Your task to perform on an android device: Do I have any events tomorrow? Image 0: 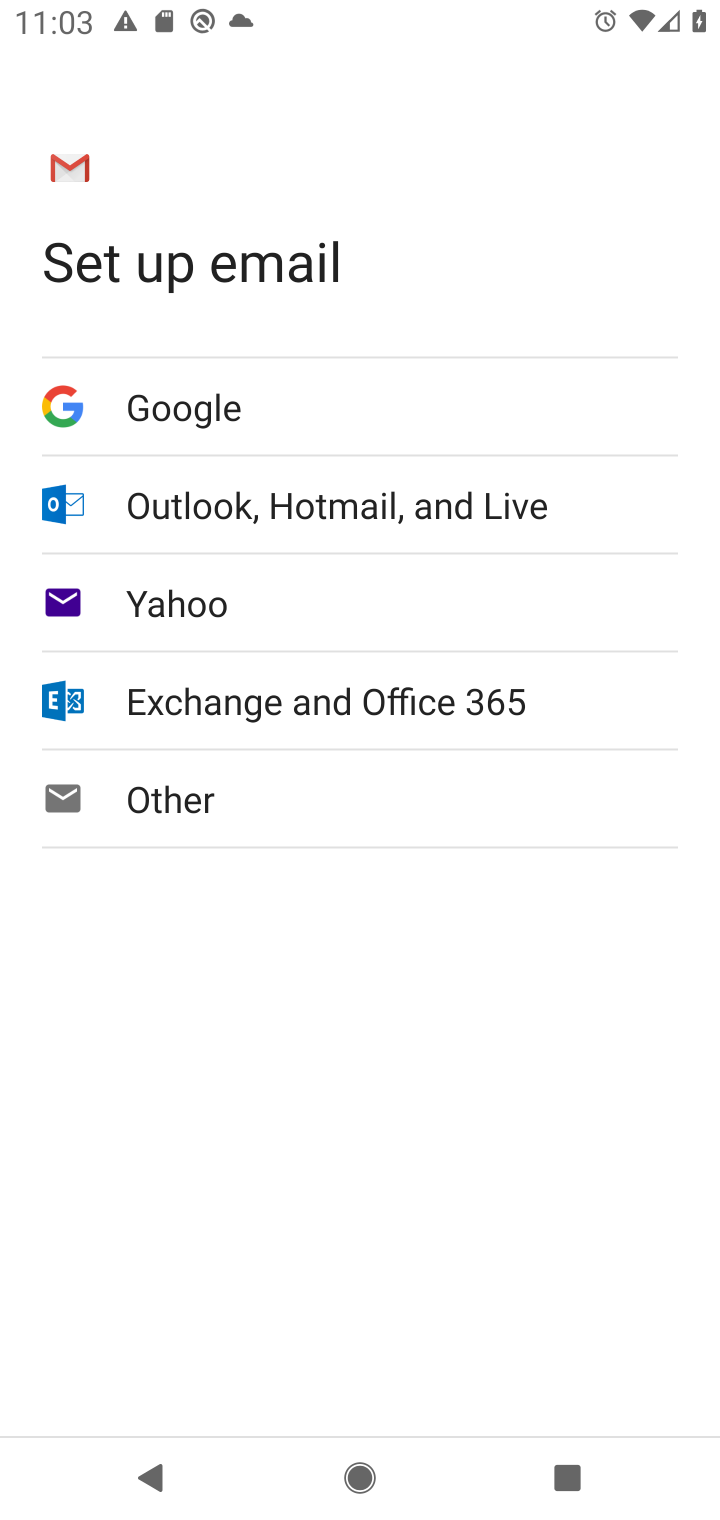
Step 0: press home button
Your task to perform on an android device: Do I have any events tomorrow? Image 1: 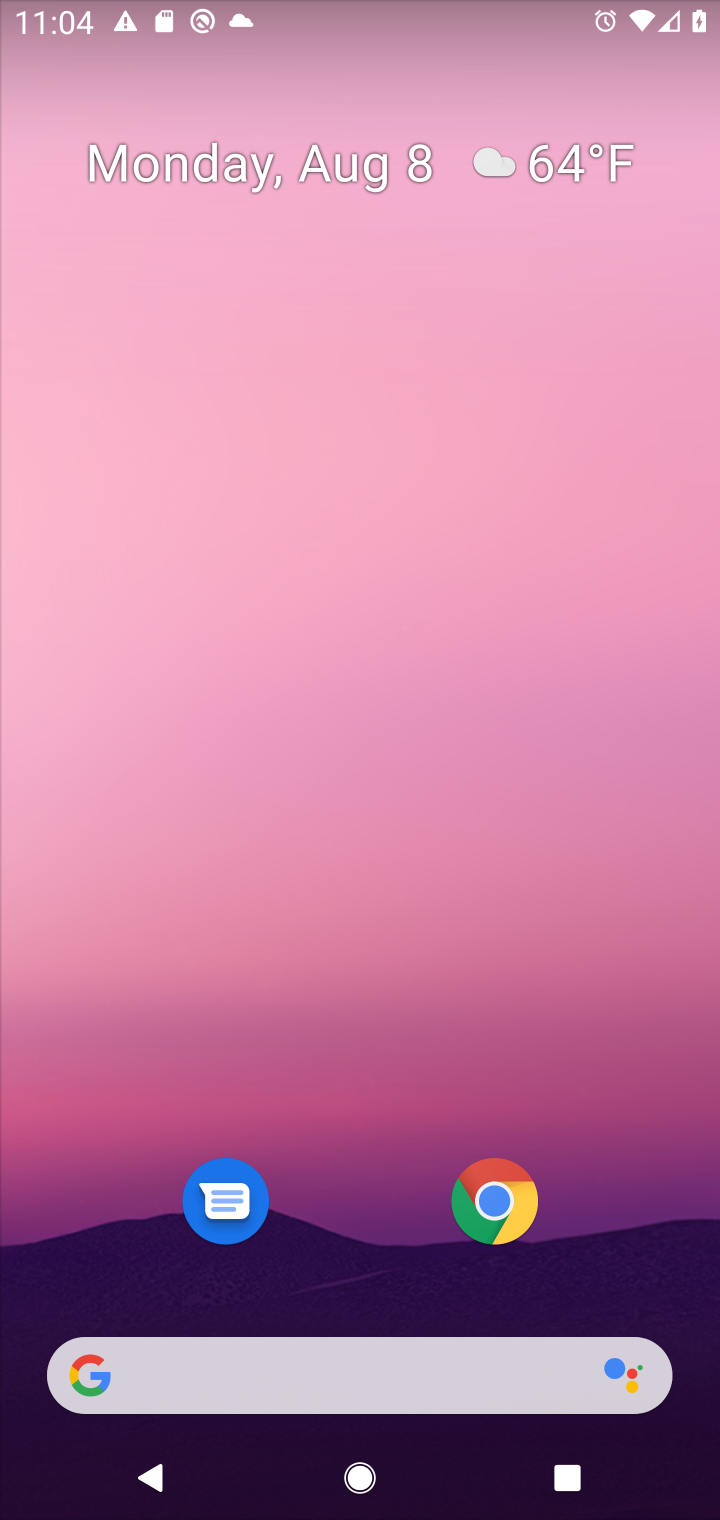
Step 1: drag from (393, 1271) to (537, 233)
Your task to perform on an android device: Do I have any events tomorrow? Image 2: 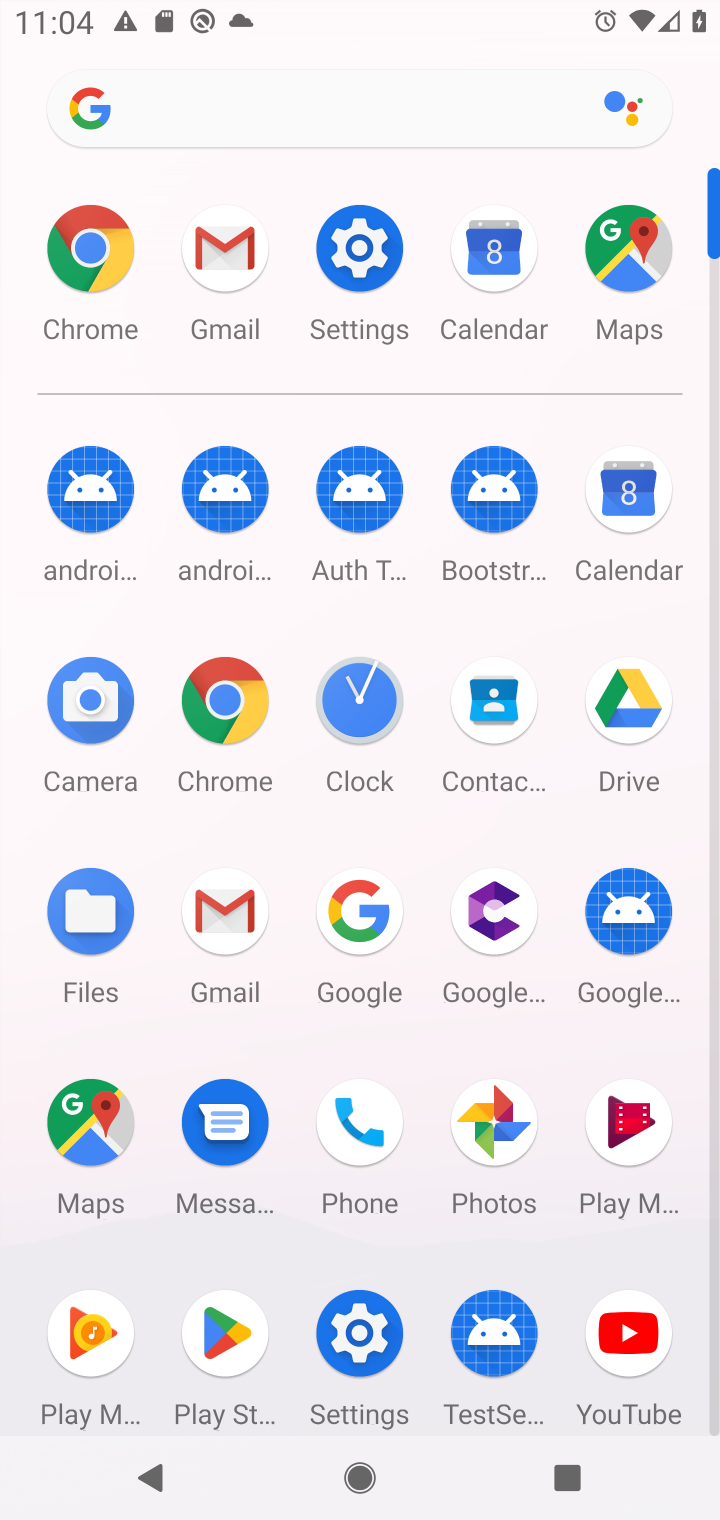
Step 2: click (619, 497)
Your task to perform on an android device: Do I have any events tomorrow? Image 3: 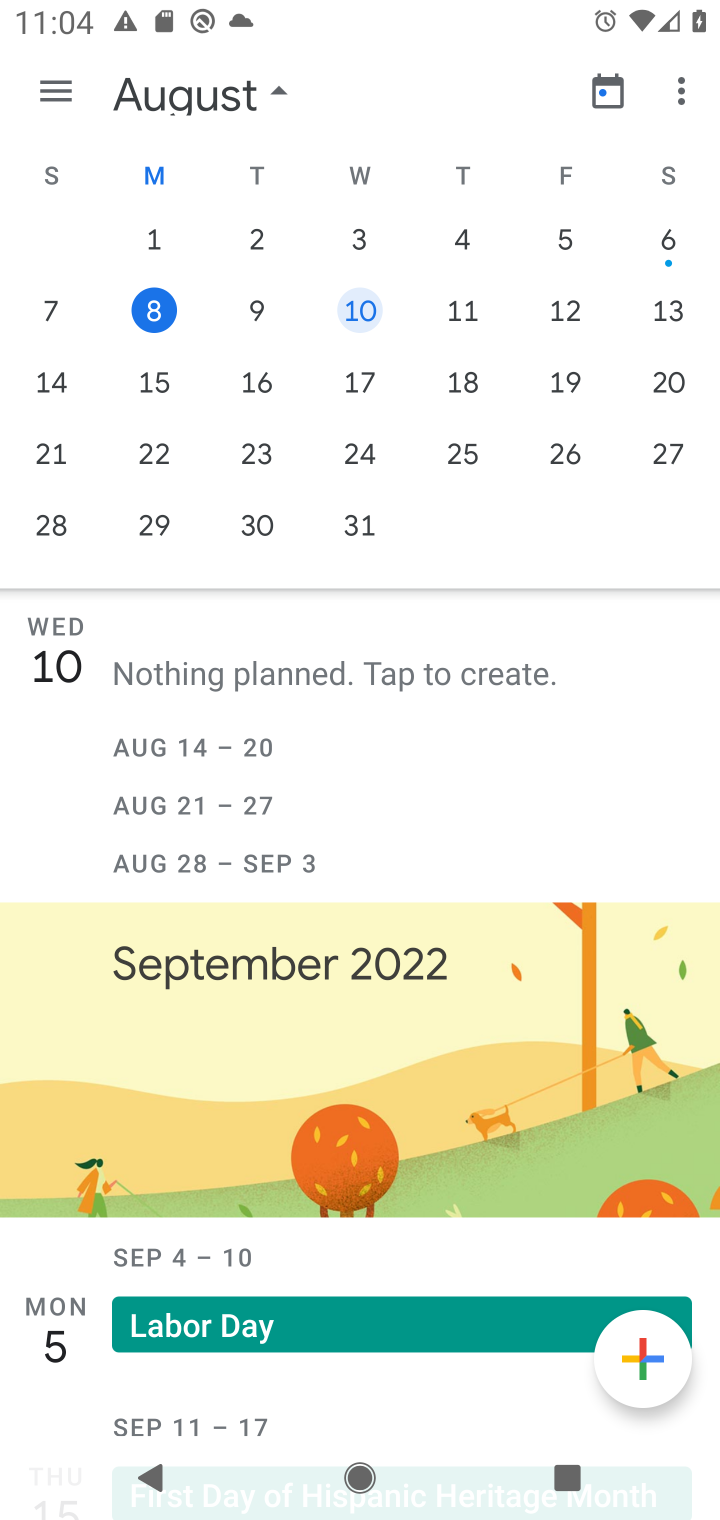
Step 3: task complete